Your task to perform on an android device: Go to location settings Image 0: 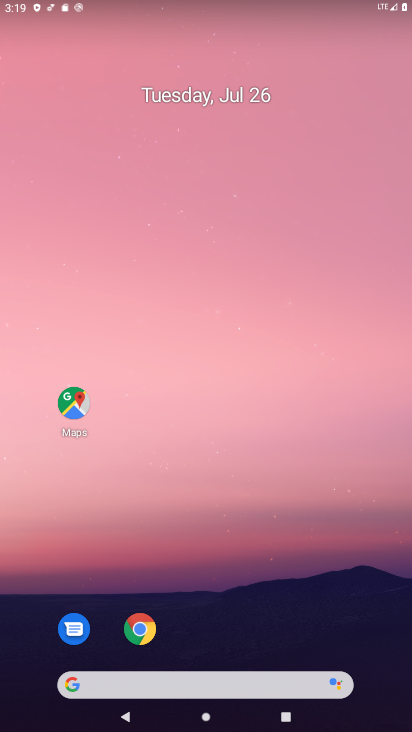
Step 0: drag from (223, 716) to (262, 160)
Your task to perform on an android device: Go to location settings Image 1: 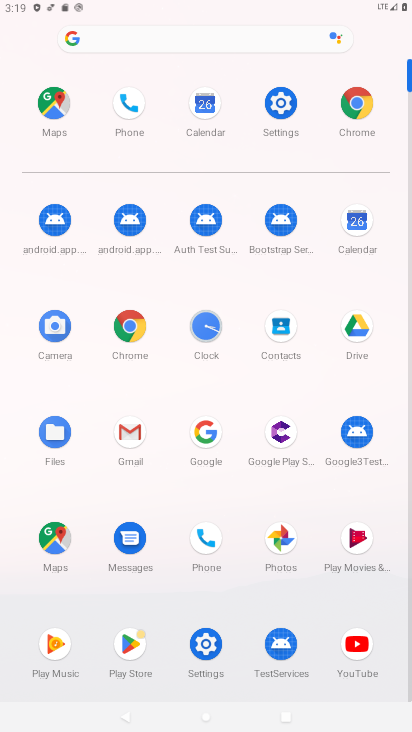
Step 1: click (285, 105)
Your task to perform on an android device: Go to location settings Image 2: 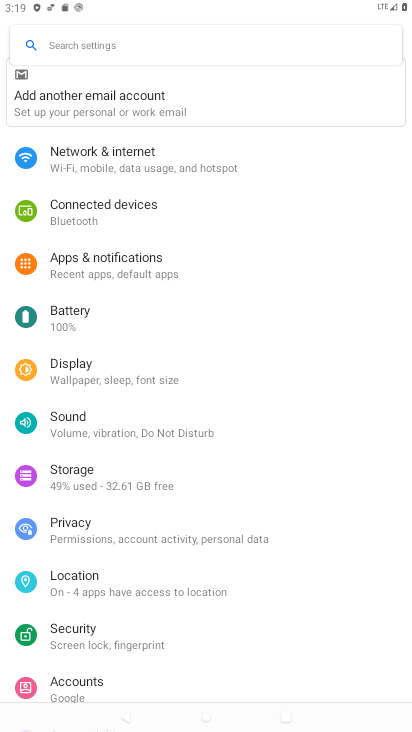
Step 2: click (74, 578)
Your task to perform on an android device: Go to location settings Image 3: 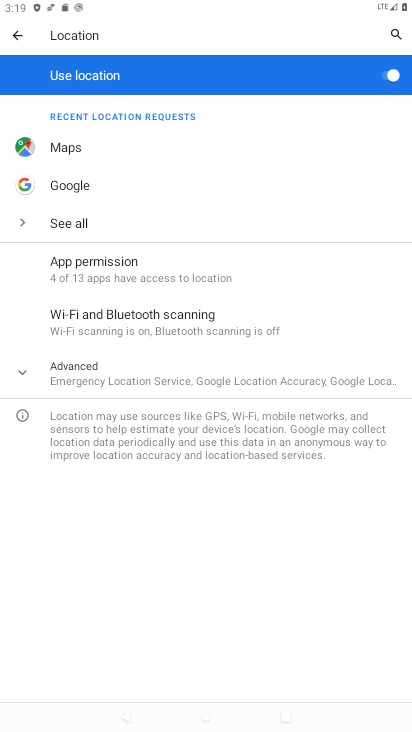
Step 3: task complete